Your task to perform on an android device: turn off location Image 0: 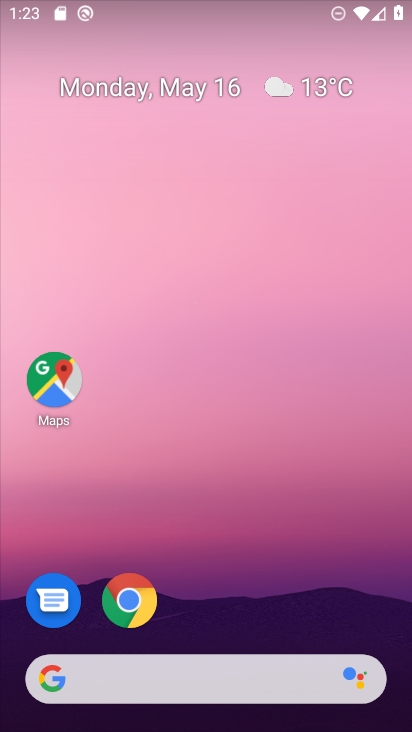
Step 0: press home button
Your task to perform on an android device: turn off location Image 1: 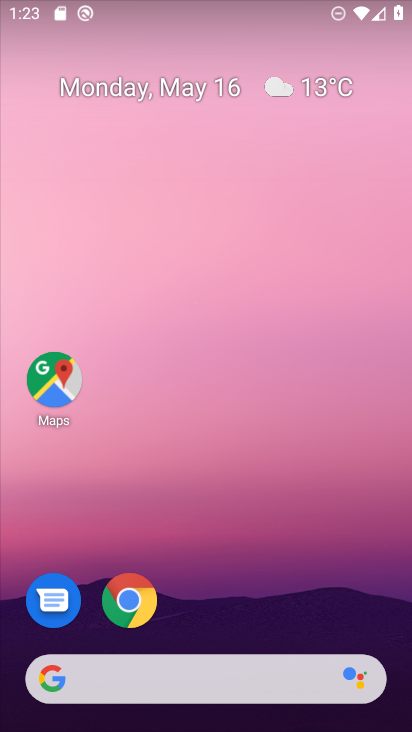
Step 1: drag from (222, 620) to (238, 23)
Your task to perform on an android device: turn off location Image 2: 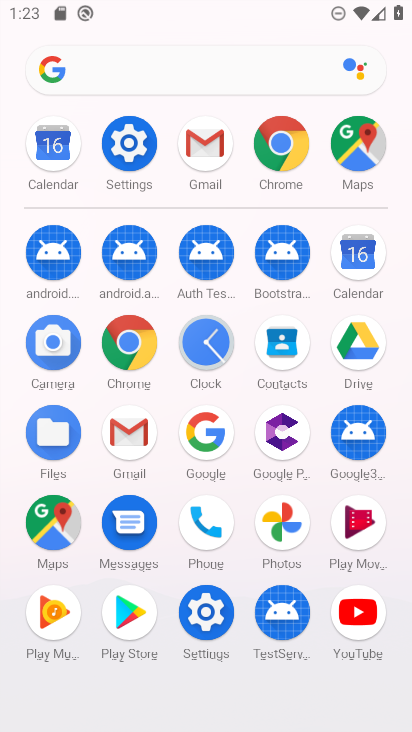
Step 2: click (126, 139)
Your task to perform on an android device: turn off location Image 3: 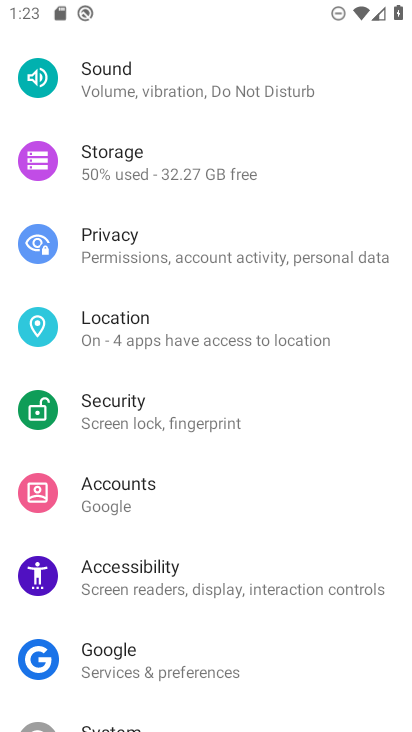
Step 3: click (164, 318)
Your task to perform on an android device: turn off location Image 4: 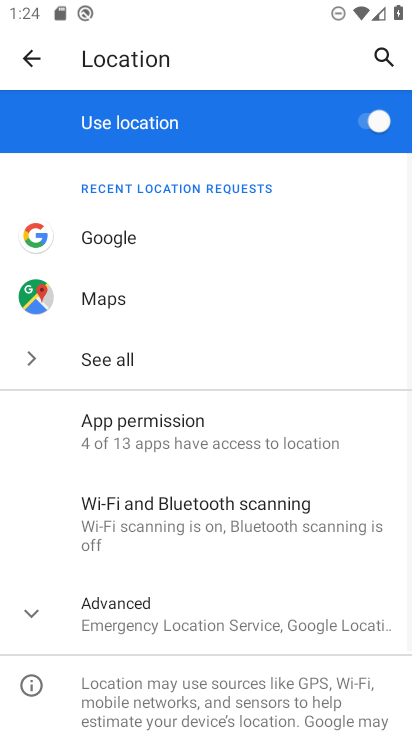
Step 4: click (370, 116)
Your task to perform on an android device: turn off location Image 5: 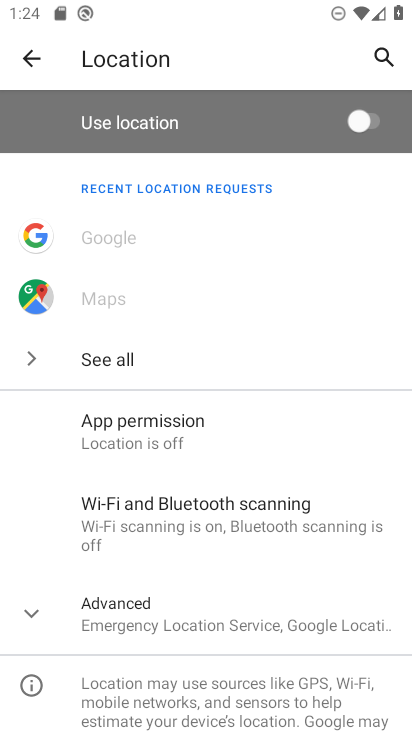
Step 5: task complete